Your task to perform on an android device: Open the stopwatch Image 0: 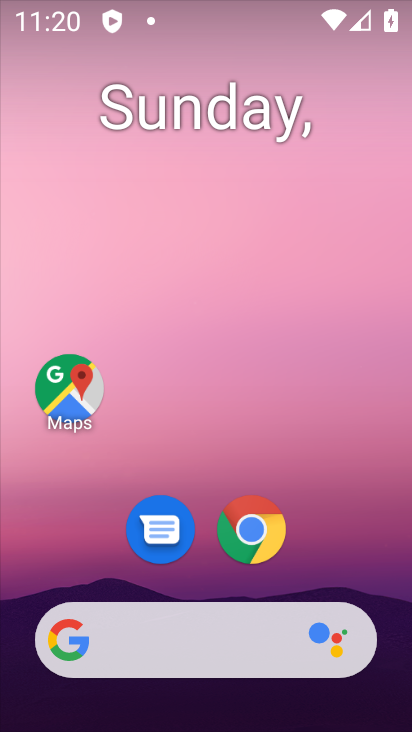
Step 0: drag from (209, 592) to (166, 7)
Your task to perform on an android device: Open the stopwatch Image 1: 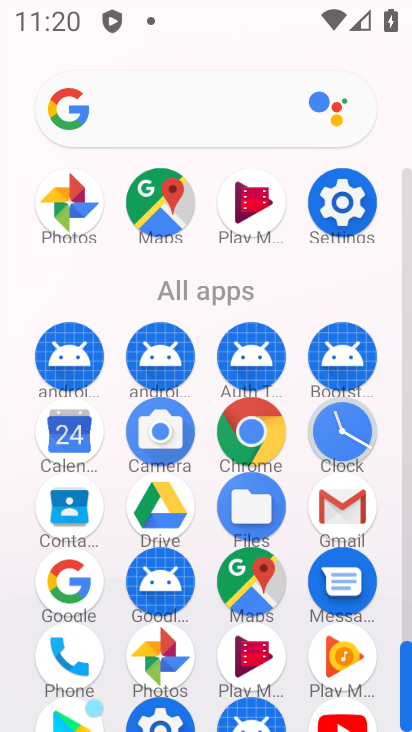
Step 1: click (343, 440)
Your task to perform on an android device: Open the stopwatch Image 2: 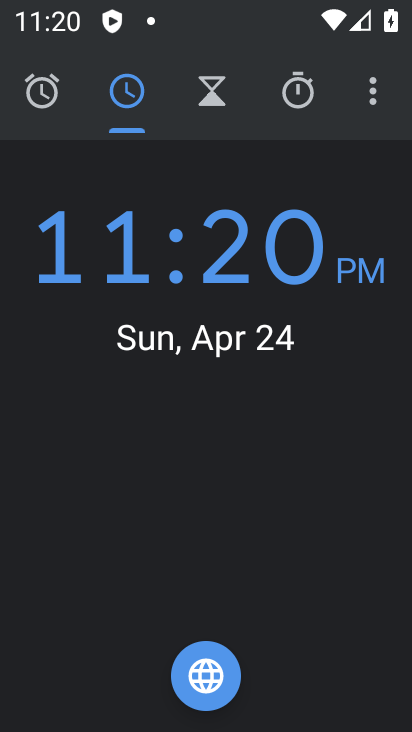
Step 2: click (302, 95)
Your task to perform on an android device: Open the stopwatch Image 3: 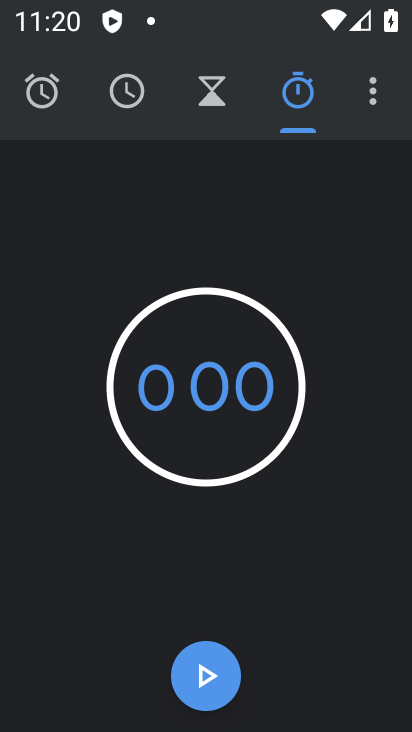
Step 3: click (192, 672)
Your task to perform on an android device: Open the stopwatch Image 4: 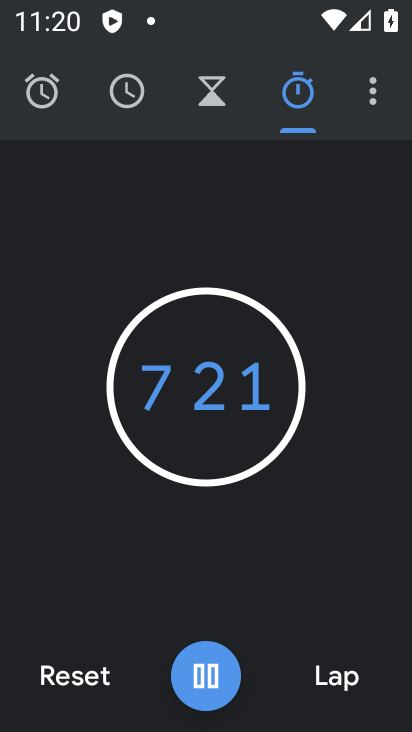
Step 4: click (200, 669)
Your task to perform on an android device: Open the stopwatch Image 5: 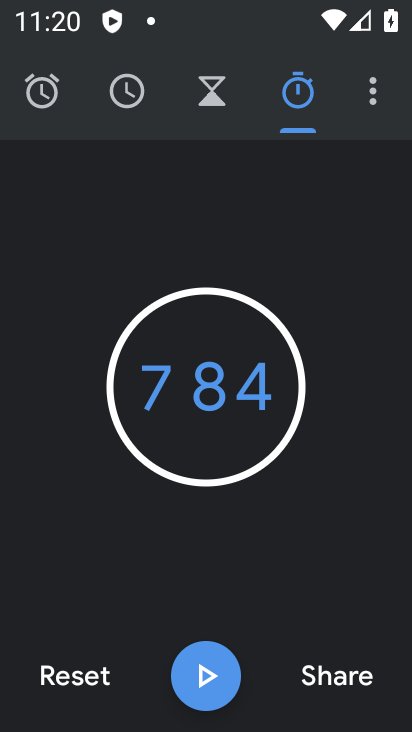
Step 5: task complete